Your task to perform on an android device: toggle wifi Image 0: 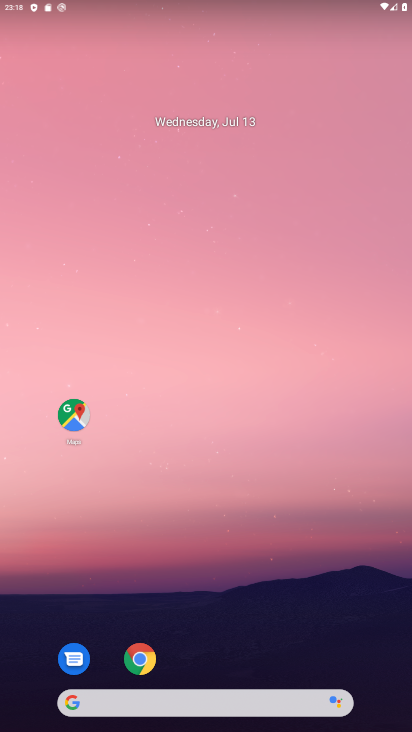
Step 0: drag from (364, 650) to (324, 125)
Your task to perform on an android device: toggle wifi Image 1: 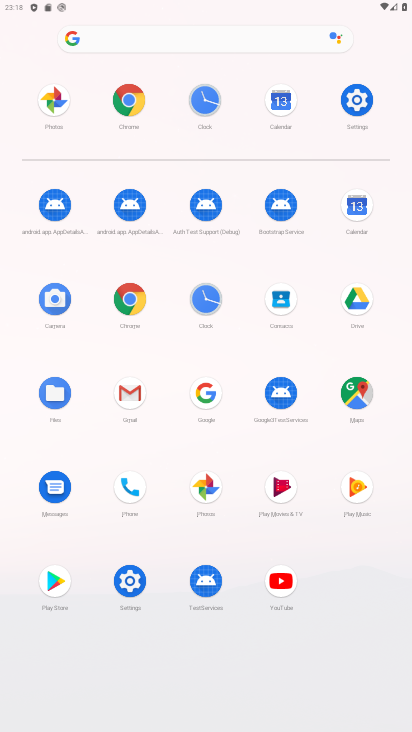
Step 1: click (129, 581)
Your task to perform on an android device: toggle wifi Image 2: 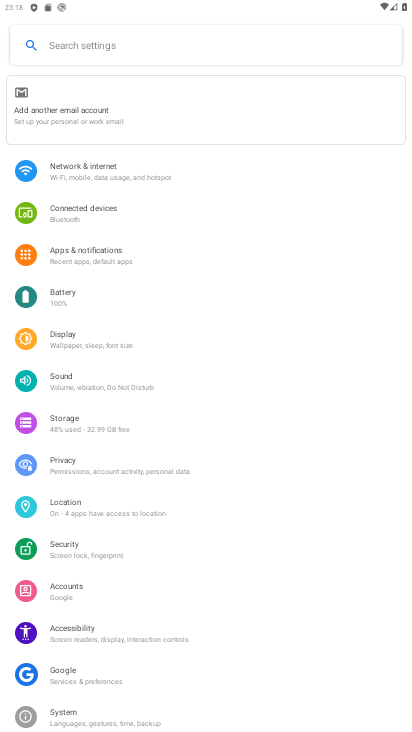
Step 2: click (80, 161)
Your task to perform on an android device: toggle wifi Image 3: 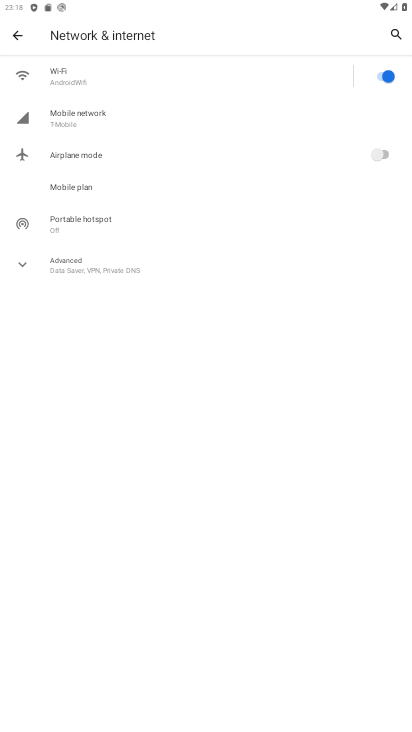
Step 3: click (377, 76)
Your task to perform on an android device: toggle wifi Image 4: 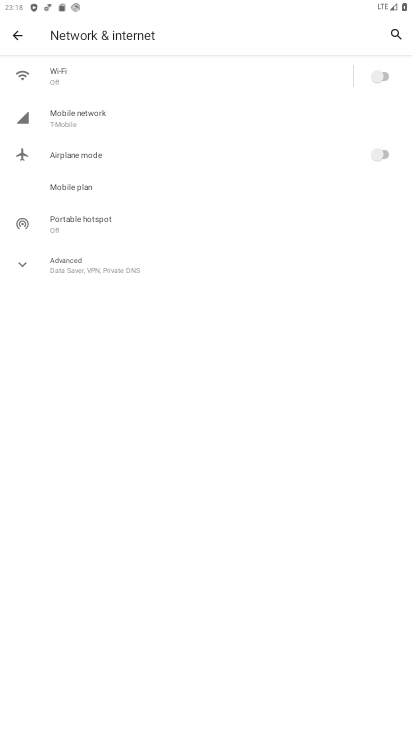
Step 4: task complete